Your task to perform on an android device: Clear all items from cart on bestbuy. Add razer nari to the cart on bestbuy Image 0: 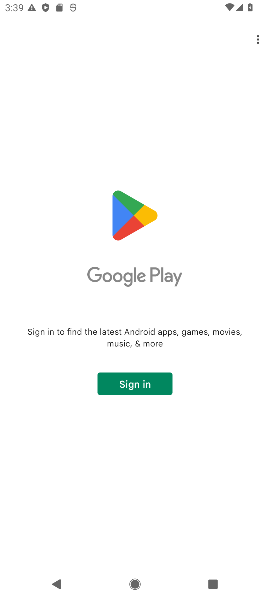
Step 0: press home button
Your task to perform on an android device: Clear all items from cart on bestbuy. Add razer nari to the cart on bestbuy Image 1: 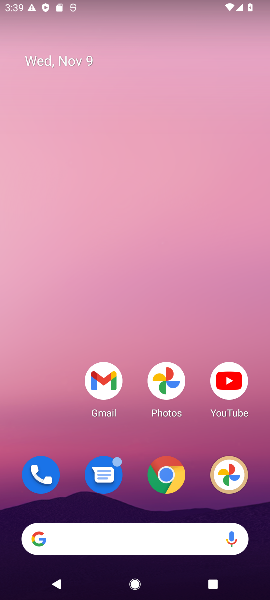
Step 1: drag from (123, 468) to (201, 89)
Your task to perform on an android device: Clear all items from cart on bestbuy. Add razer nari to the cart on bestbuy Image 2: 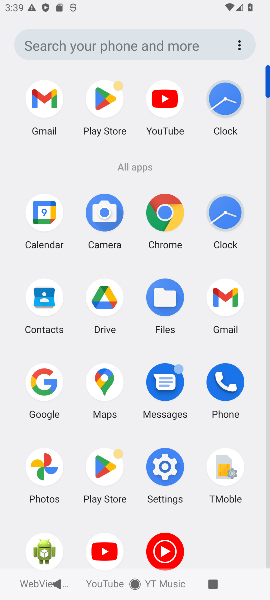
Step 2: click (161, 206)
Your task to perform on an android device: Clear all items from cart on bestbuy. Add razer nari to the cart on bestbuy Image 3: 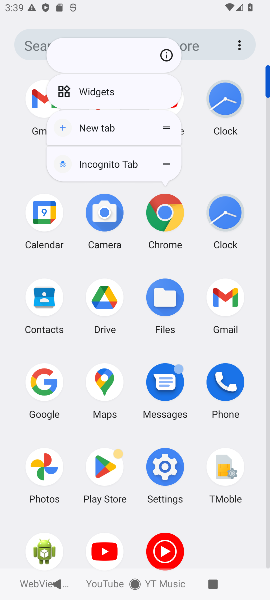
Step 3: click (165, 207)
Your task to perform on an android device: Clear all items from cart on bestbuy. Add razer nari to the cart on bestbuy Image 4: 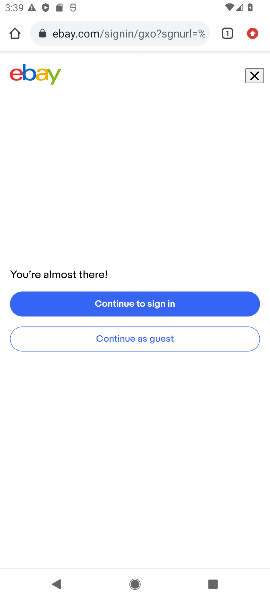
Step 4: click (132, 31)
Your task to perform on an android device: Clear all items from cart on bestbuy. Add razer nari to the cart on bestbuy Image 5: 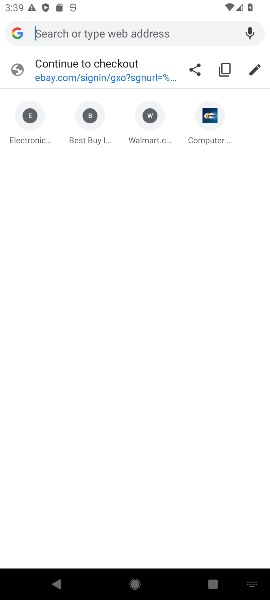
Step 5: type "bestbuy."
Your task to perform on an android device: Clear all items from cart on bestbuy. Add razer nari to the cart on bestbuy Image 6: 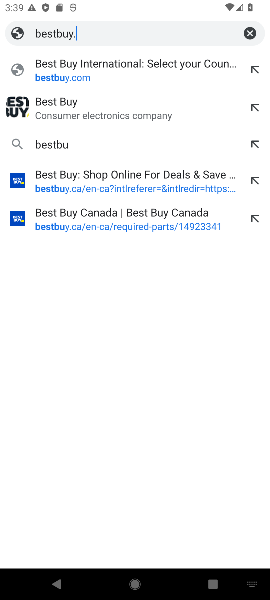
Step 6: press enter
Your task to perform on an android device: Clear all items from cart on bestbuy. Add razer nari to the cart on bestbuy Image 7: 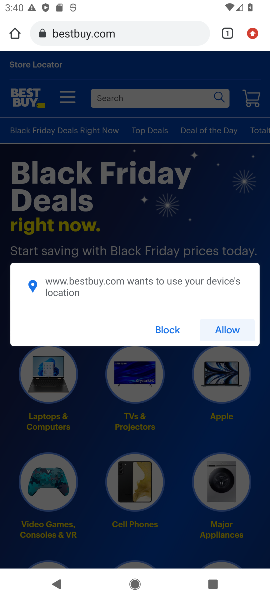
Step 7: click (223, 334)
Your task to perform on an android device: Clear all items from cart on bestbuy. Add razer nari to the cart on bestbuy Image 8: 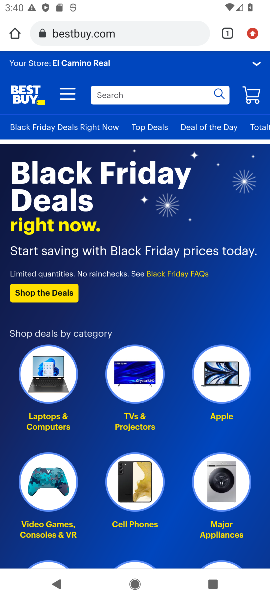
Step 8: click (256, 91)
Your task to perform on an android device: Clear all items from cart on bestbuy. Add razer nari to the cart on bestbuy Image 9: 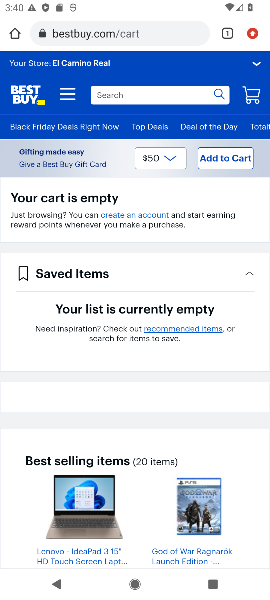
Step 9: click (137, 95)
Your task to perform on an android device: Clear all items from cart on bestbuy. Add razer nari to the cart on bestbuy Image 10: 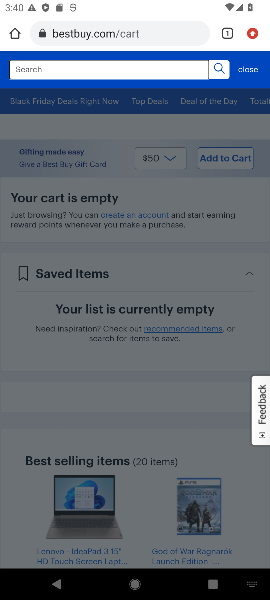
Step 10: click (86, 74)
Your task to perform on an android device: Clear all items from cart on bestbuy. Add razer nari to the cart on bestbuy Image 11: 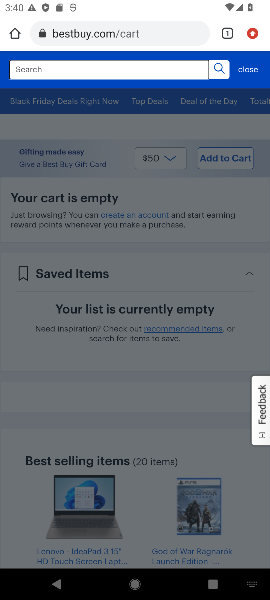
Step 11: click (94, 69)
Your task to perform on an android device: Clear all items from cart on bestbuy. Add razer nari to the cart on bestbuy Image 12: 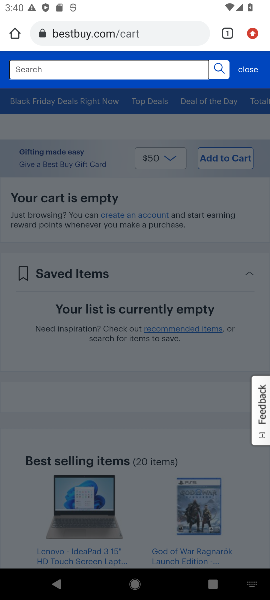
Step 12: type "razer nari "
Your task to perform on an android device: Clear all items from cart on bestbuy. Add razer nari to the cart on bestbuy Image 13: 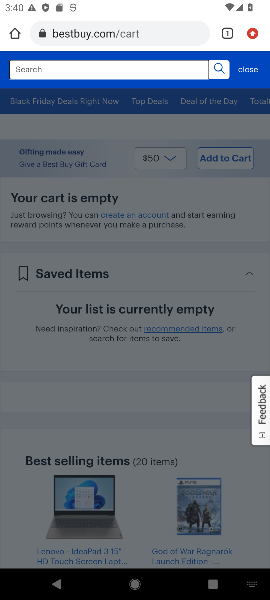
Step 13: press enter
Your task to perform on an android device: Clear all items from cart on bestbuy. Add razer nari to the cart on bestbuy Image 14: 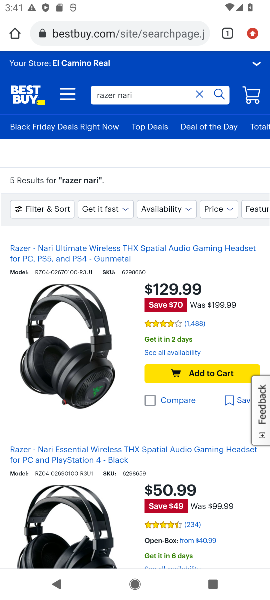
Step 14: click (193, 369)
Your task to perform on an android device: Clear all items from cart on bestbuy. Add razer nari to the cart on bestbuy Image 15: 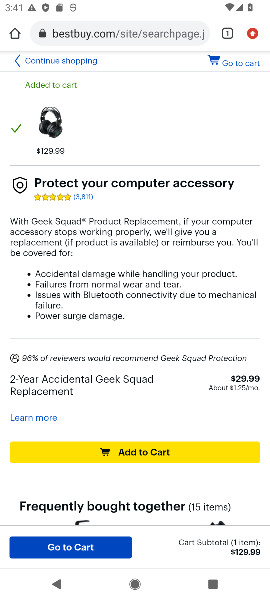
Step 15: click (160, 456)
Your task to perform on an android device: Clear all items from cart on bestbuy. Add razer nari to the cart on bestbuy Image 16: 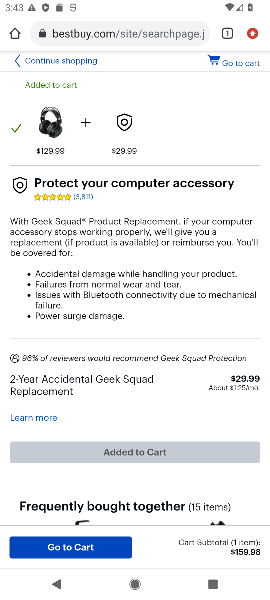
Step 16: task complete